Your task to perform on an android device: open a new tab in the chrome app Image 0: 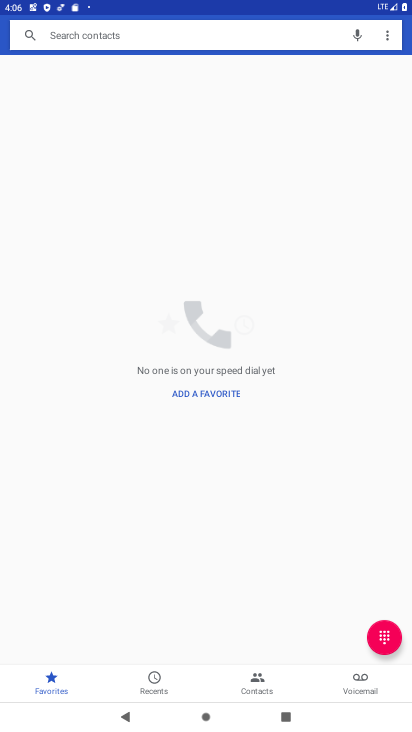
Step 0: press home button
Your task to perform on an android device: open a new tab in the chrome app Image 1: 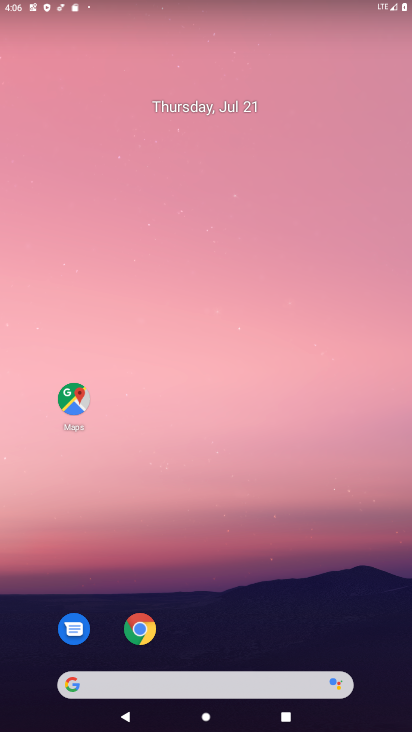
Step 1: drag from (287, 608) to (276, 153)
Your task to perform on an android device: open a new tab in the chrome app Image 2: 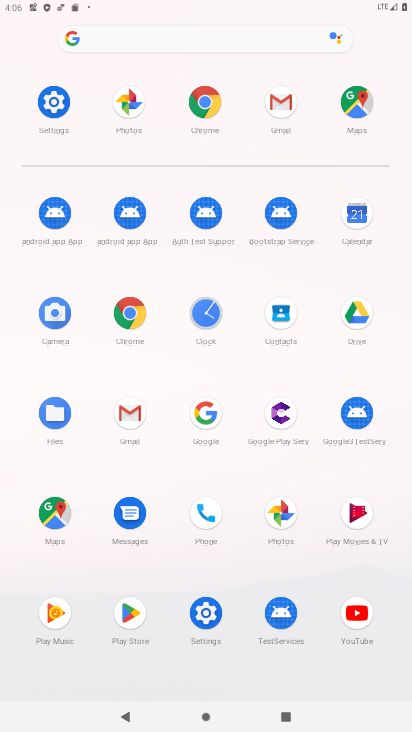
Step 2: click (201, 101)
Your task to perform on an android device: open a new tab in the chrome app Image 3: 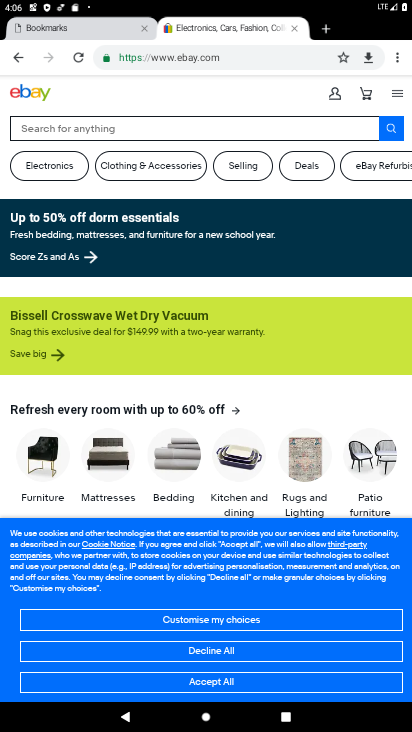
Step 3: click (321, 30)
Your task to perform on an android device: open a new tab in the chrome app Image 4: 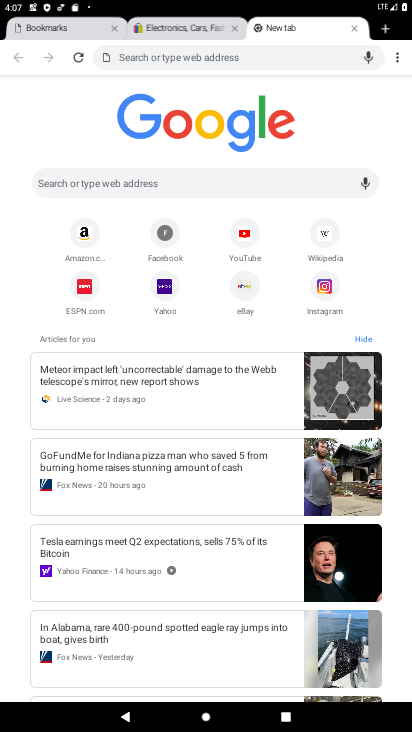
Step 4: task complete